Your task to perform on an android device: Go to Reddit.com Image 0: 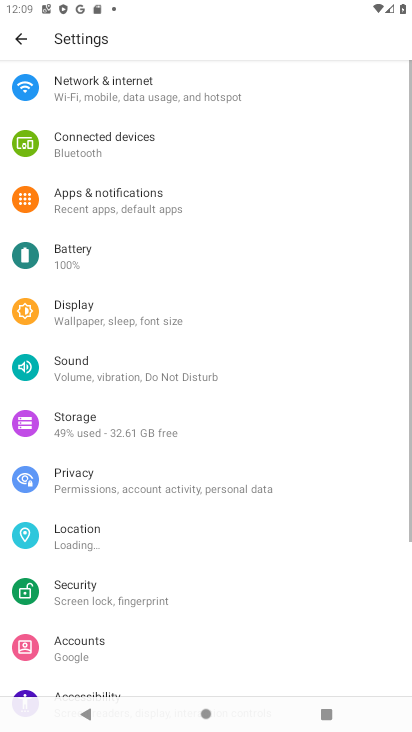
Step 0: press home button
Your task to perform on an android device: Go to Reddit.com Image 1: 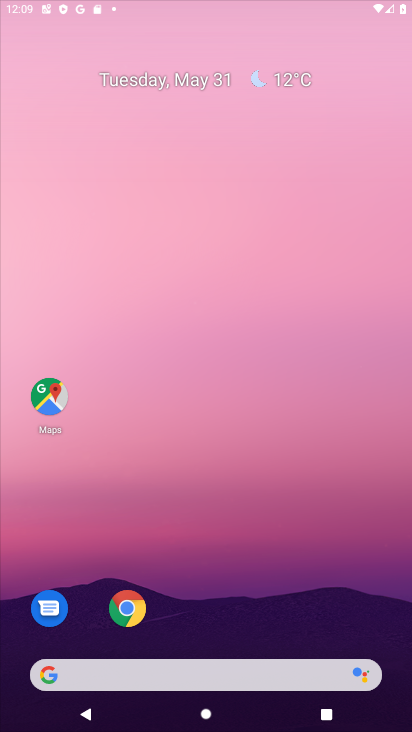
Step 1: drag from (202, 603) to (234, 53)
Your task to perform on an android device: Go to Reddit.com Image 2: 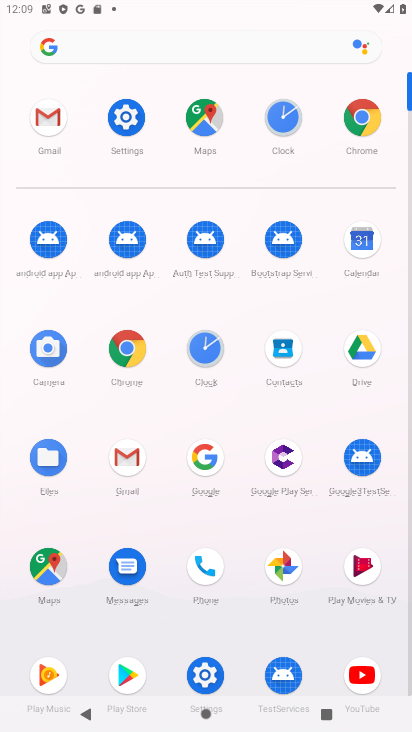
Step 2: click (203, 468)
Your task to perform on an android device: Go to Reddit.com Image 3: 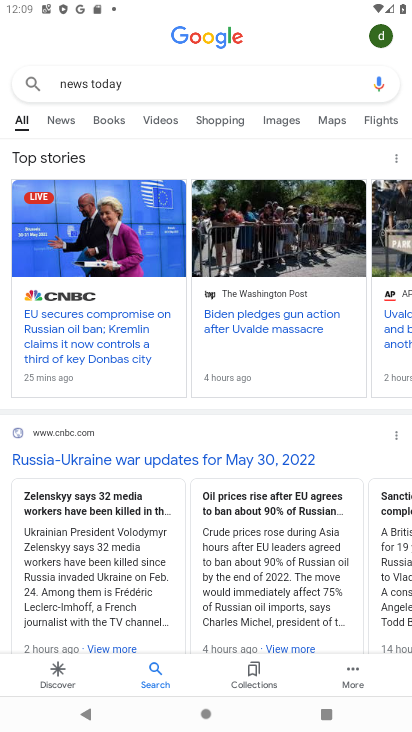
Step 3: click (163, 87)
Your task to perform on an android device: Go to Reddit.com Image 4: 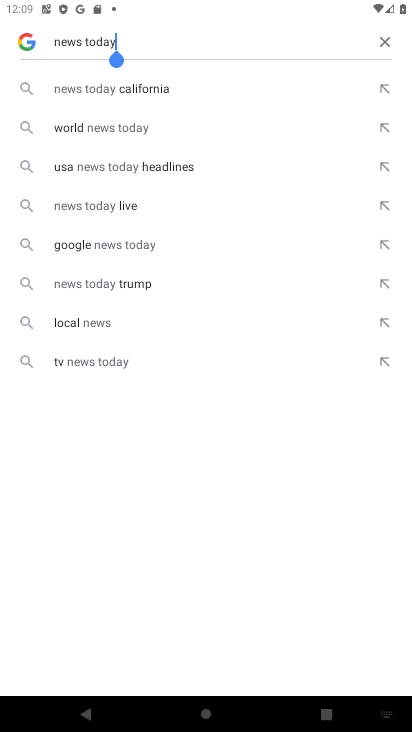
Step 4: click (387, 45)
Your task to perform on an android device: Go to Reddit.com Image 5: 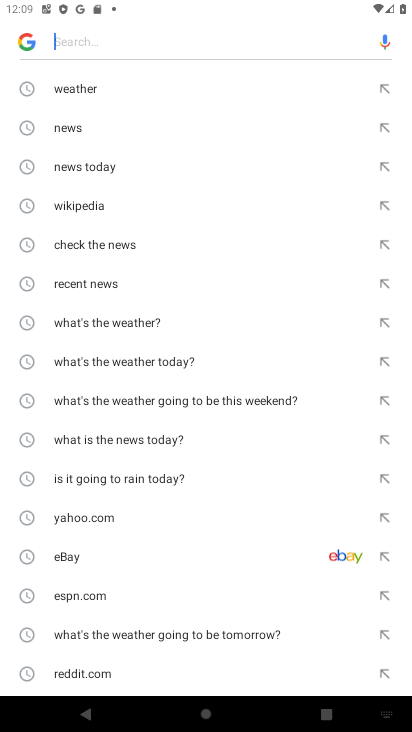
Step 5: click (84, 677)
Your task to perform on an android device: Go to Reddit.com Image 6: 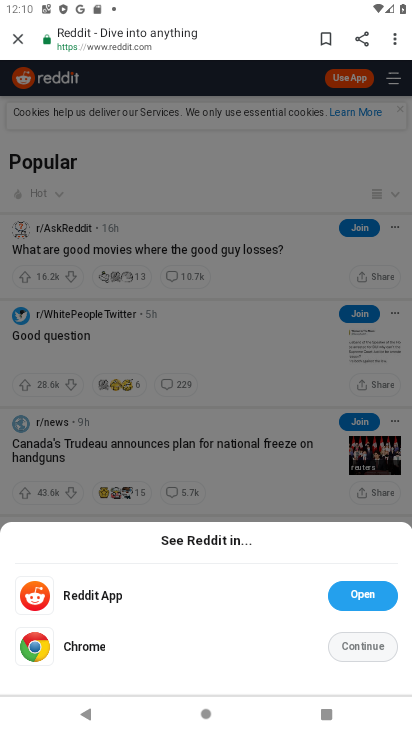
Step 6: task complete